Your task to perform on an android device: What is the news today? Image 0: 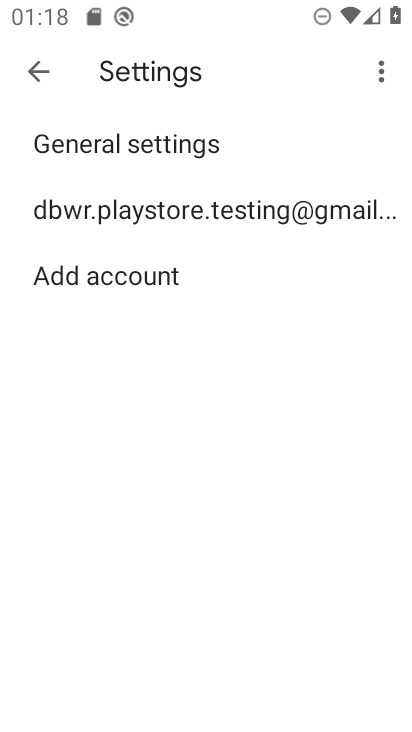
Step 0: press home button
Your task to perform on an android device: What is the news today? Image 1: 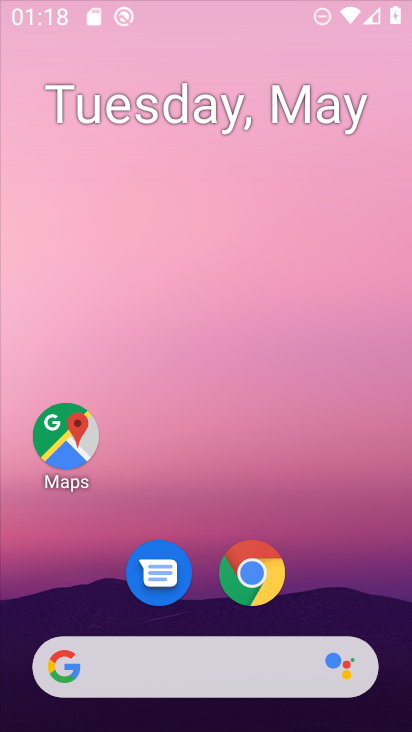
Step 1: drag from (299, 532) to (252, 112)
Your task to perform on an android device: What is the news today? Image 2: 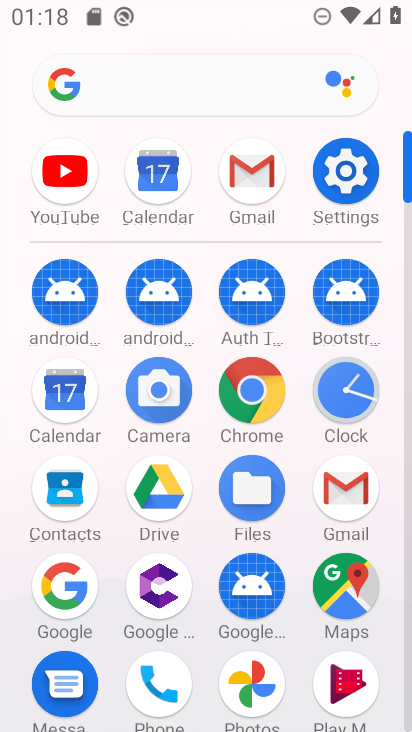
Step 2: click (68, 581)
Your task to perform on an android device: What is the news today? Image 3: 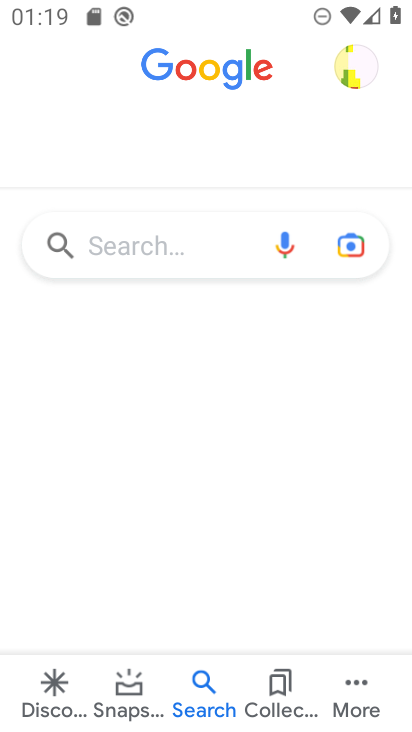
Step 3: click (159, 252)
Your task to perform on an android device: What is the news today? Image 4: 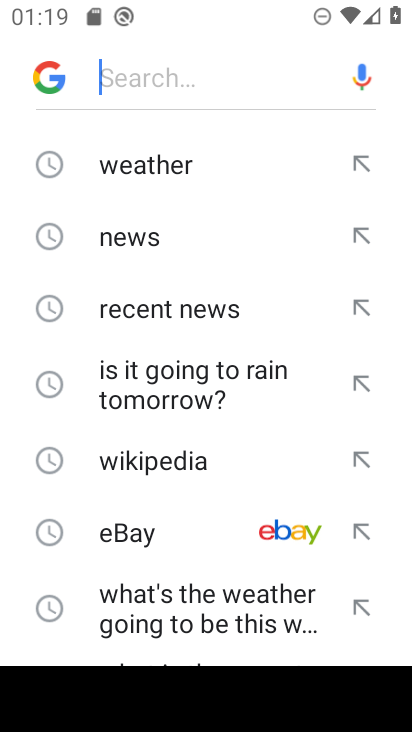
Step 4: click (173, 234)
Your task to perform on an android device: What is the news today? Image 5: 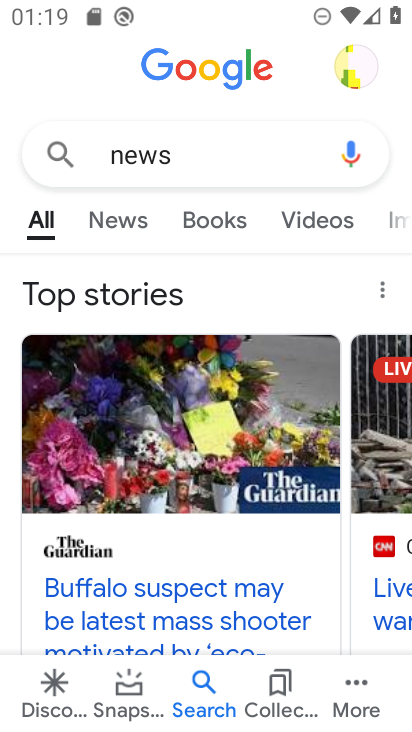
Step 5: task complete